Your task to perform on an android device: Open Maps and search for coffee Image 0: 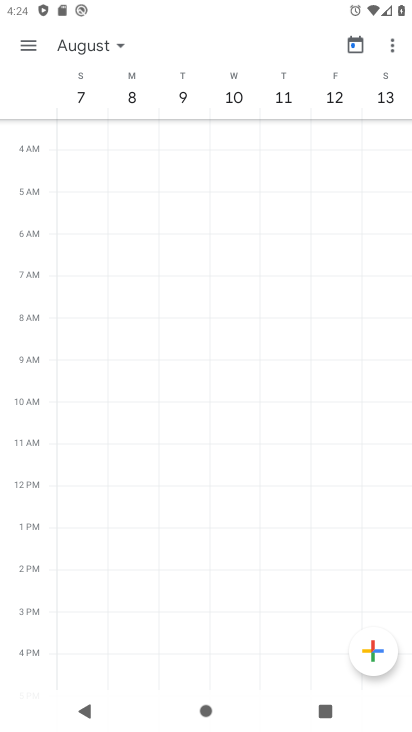
Step 0: press home button
Your task to perform on an android device: Open Maps and search for coffee Image 1: 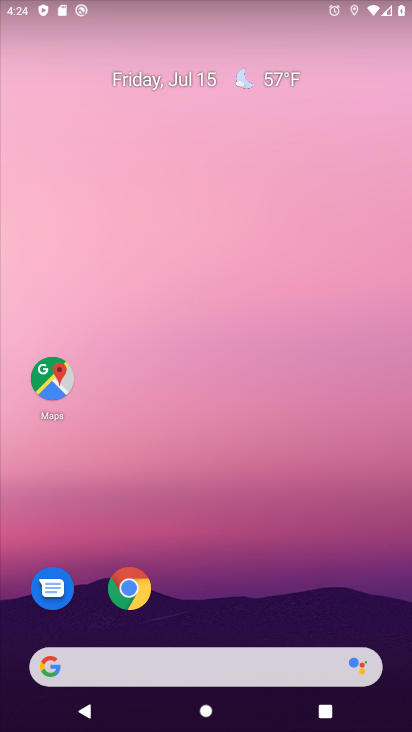
Step 1: click (53, 381)
Your task to perform on an android device: Open Maps and search for coffee Image 2: 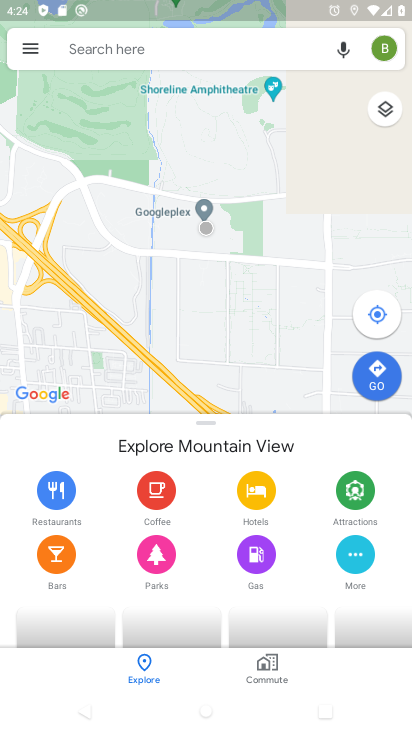
Step 2: click (210, 50)
Your task to perform on an android device: Open Maps and search for coffee Image 3: 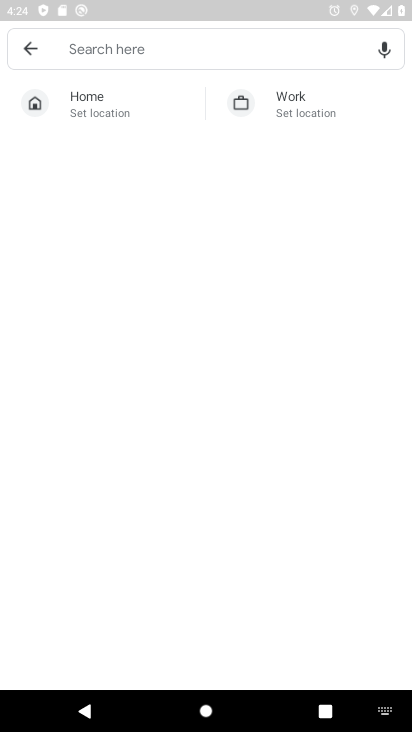
Step 3: type "coffee"
Your task to perform on an android device: Open Maps and search for coffee Image 4: 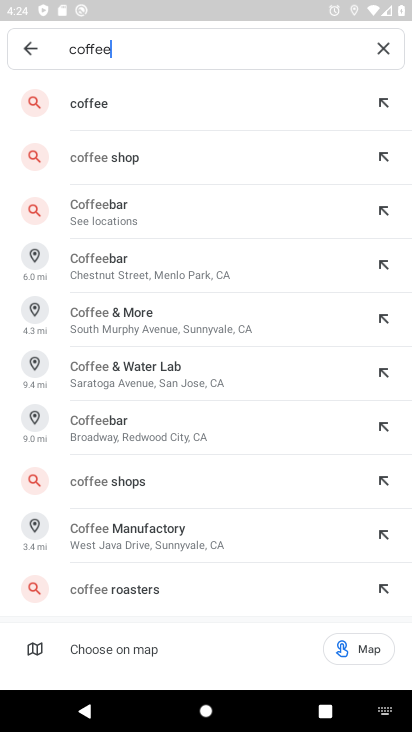
Step 4: click (113, 107)
Your task to perform on an android device: Open Maps and search for coffee Image 5: 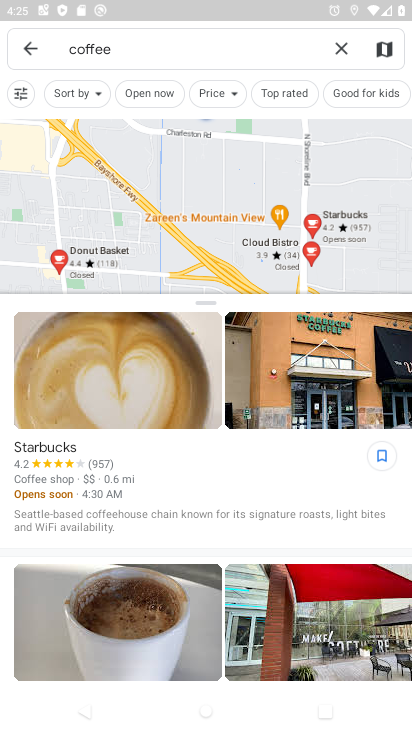
Step 5: task complete